Your task to perform on an android device: delete location history Image 0: 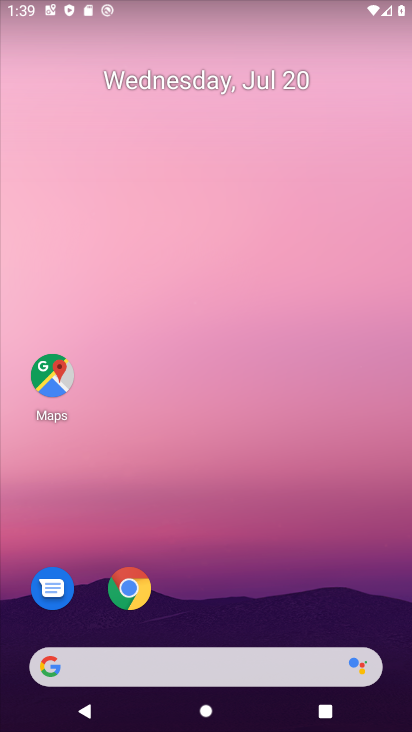
Step 0: drag from (337, 601) to (208, 0)
Your task to perform on an android device: delete location history Image 1: 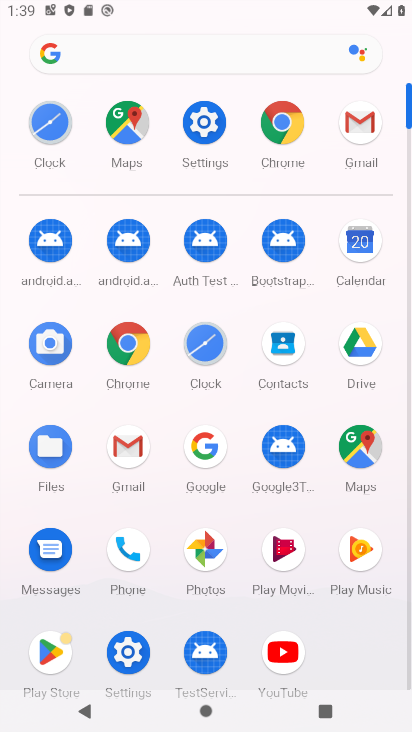
Step 1: click (133, 655)
Your task to perform on an android device: delete location history Image 2: 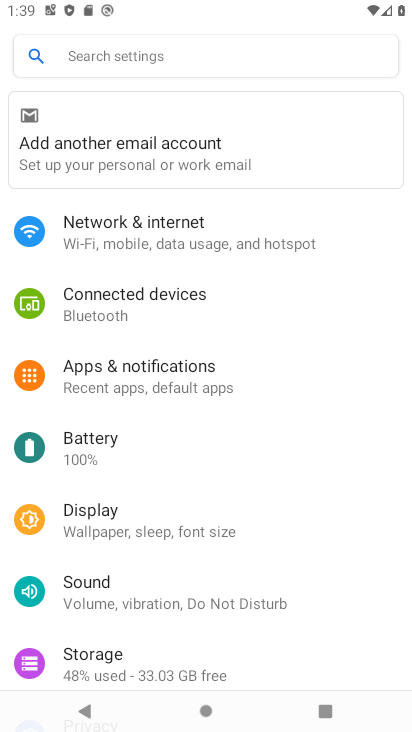
Step 2: drag from (105, 637) to (172, 203)
Your task to perform on an android device: delete location history Image 3: 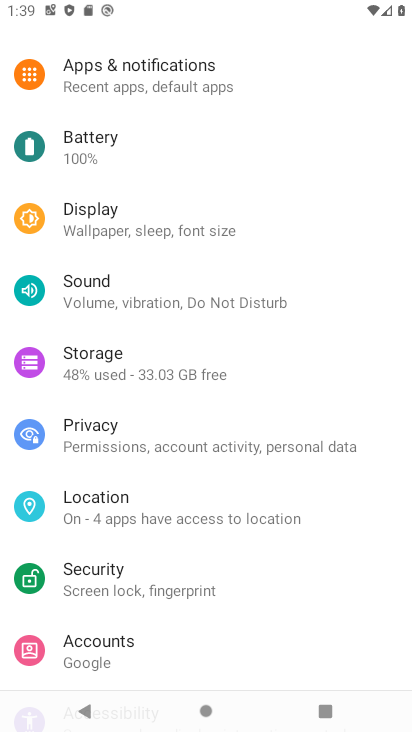
Step 3: click (100, 504)
Your task to perform on an android device: delete location history Image 4: 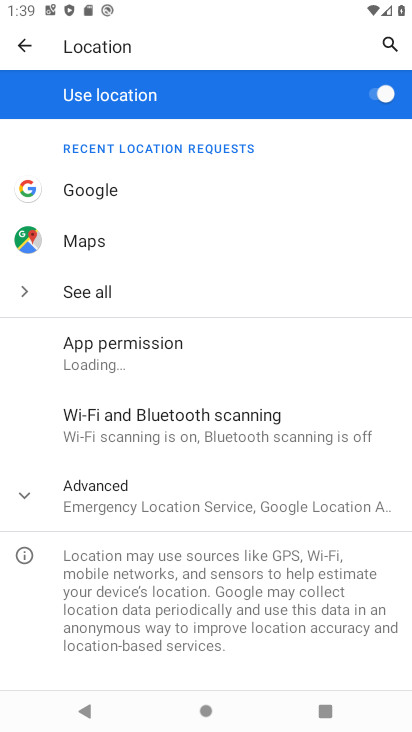
Step 4: click (141, 489)
Your task to perform on an android device: delete location history Image 5: 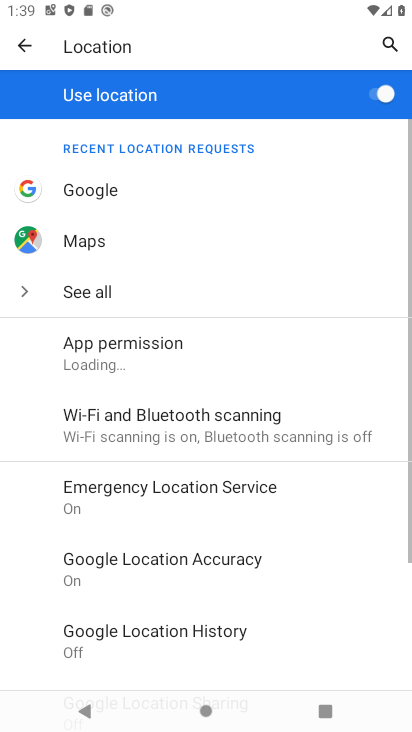
Step 5: click (180, 629)
Your task to perform on an android device: delete location history Image 6: 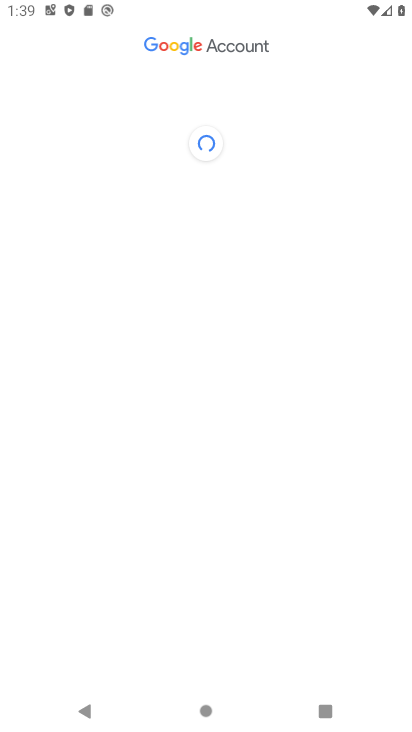
Step 6: task complete